Your task to perform on an android device: visit the assistant section in the google photos Image 0: 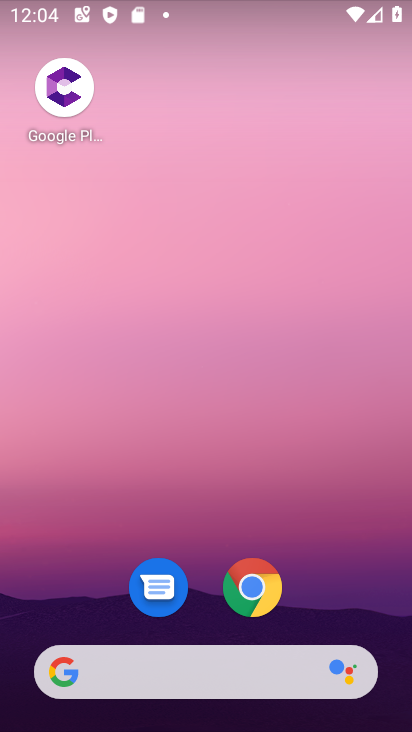
Step 0: drag from (382, 595) to (382, 10)
Your task to perform on an android device: visit the assistant section in the google photos Image 1: 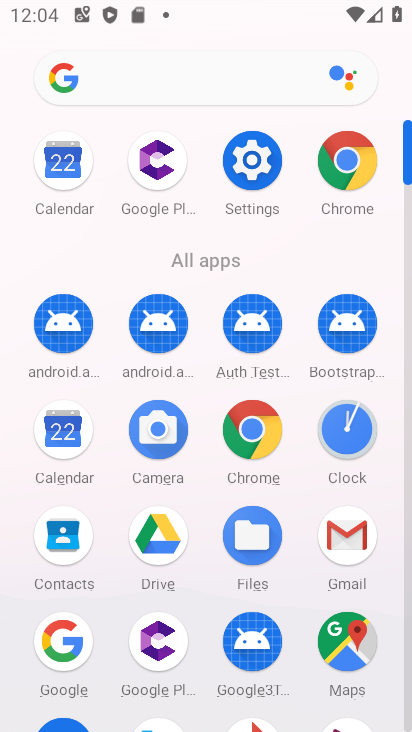
Step 1: drag from (405, 575) to (411, 534)
Your task to perform on an android device: visit the assistant section in the google photos Image 2: 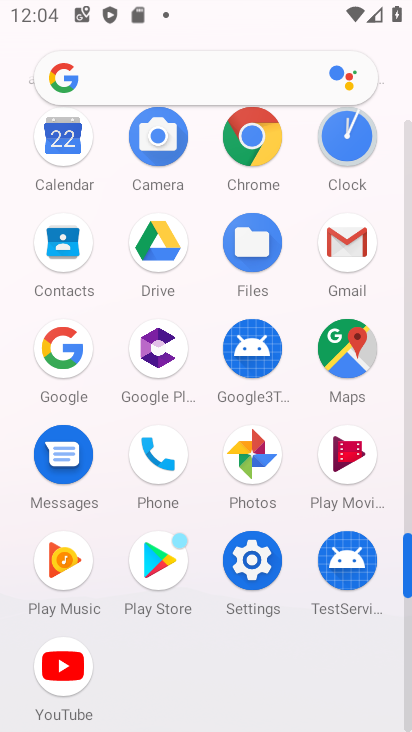
Step 2: click (251, 451)
Your task to perform on an android device: visit the assistant section in the google photos Image 3: 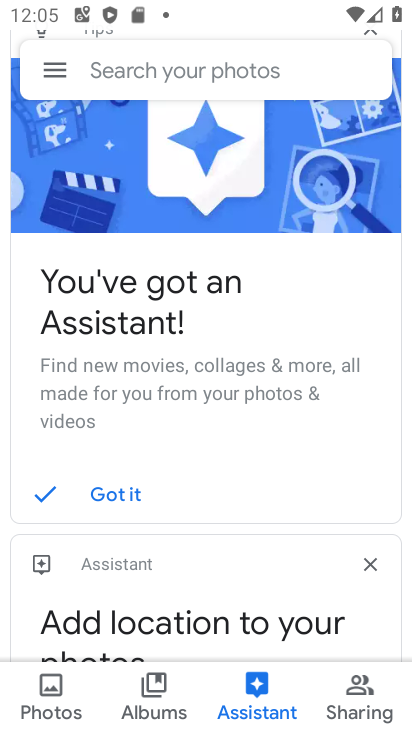
Step 3: task complete